Your task to perform on an android device: Open settings on Google Maps Image 0: 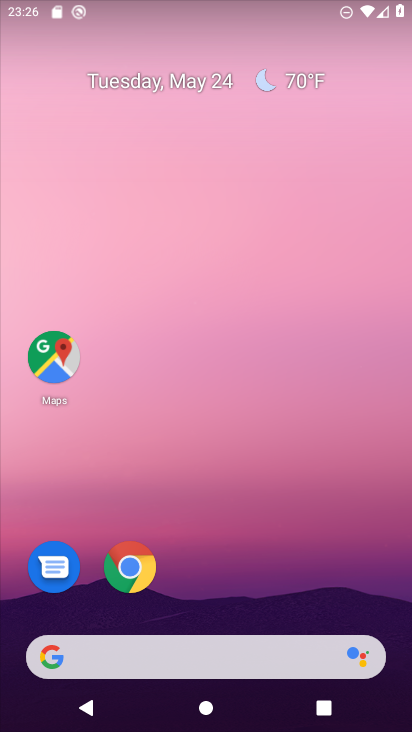
Step 0: click (51, 354)
Your task to perform on an android device: Open settings on Google Maps Image 1: 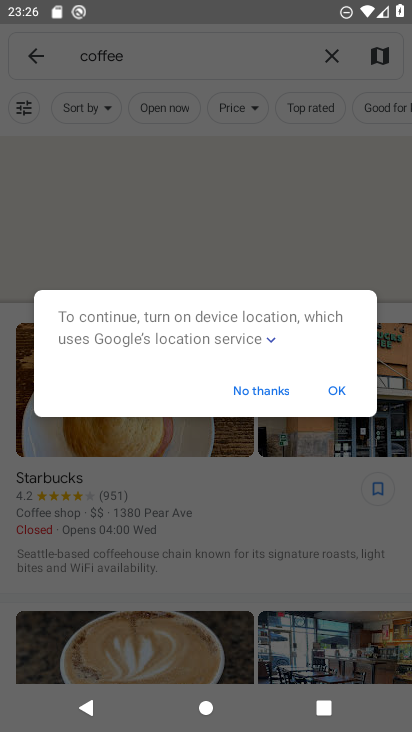
Step 1: task complete